Your task to perform on an android device: find photos in the google photos app Image 0: 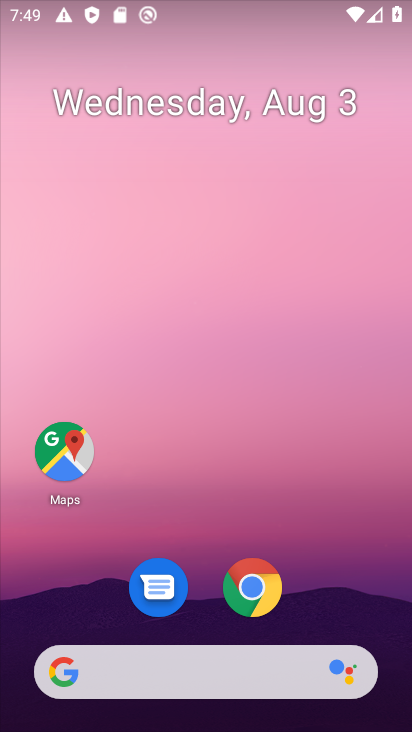
Step 0: drag from (196, 537) to (173, 60)
Your task to perform on an android device: find photos in the google photos app Image 1: 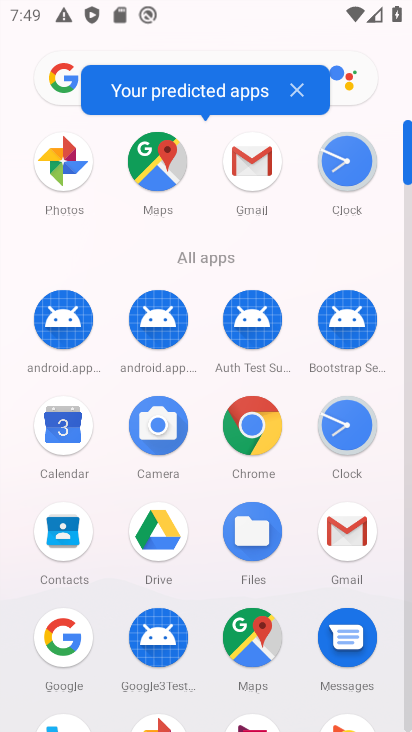
Step 1: drag from (208, 588) to (139, 114)
Your task to perform on an android device: find photos in the google photos app Image 2: 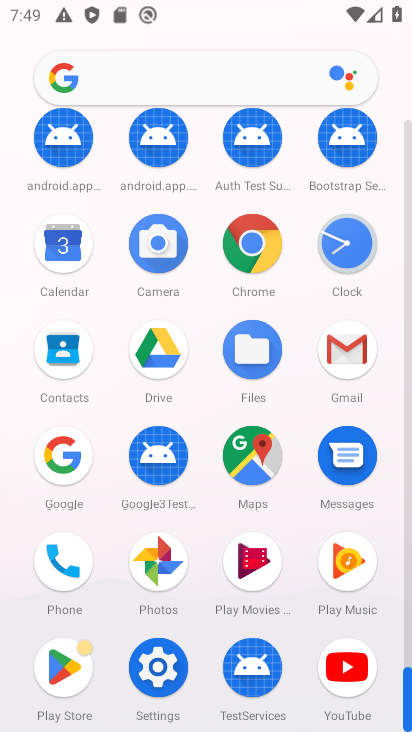
Step 2: click (175, 542)
Your task to perform on an android device: find photos in the google photos app Image 3: 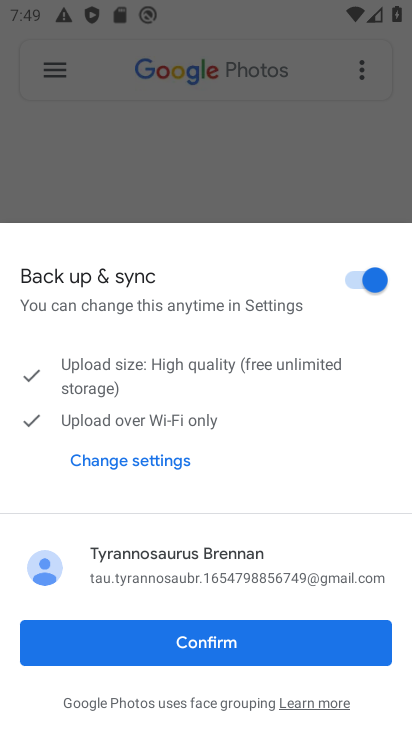
Step 3: click (110, 635)
Your task to perform on an android device: find photos in the google photos app Image 4: 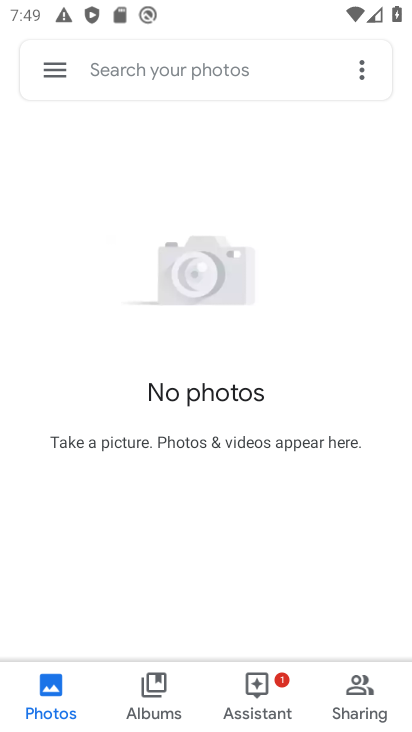
Step 4: task complete